Your task to perform on an android device: What's the news this morning? Image 0: 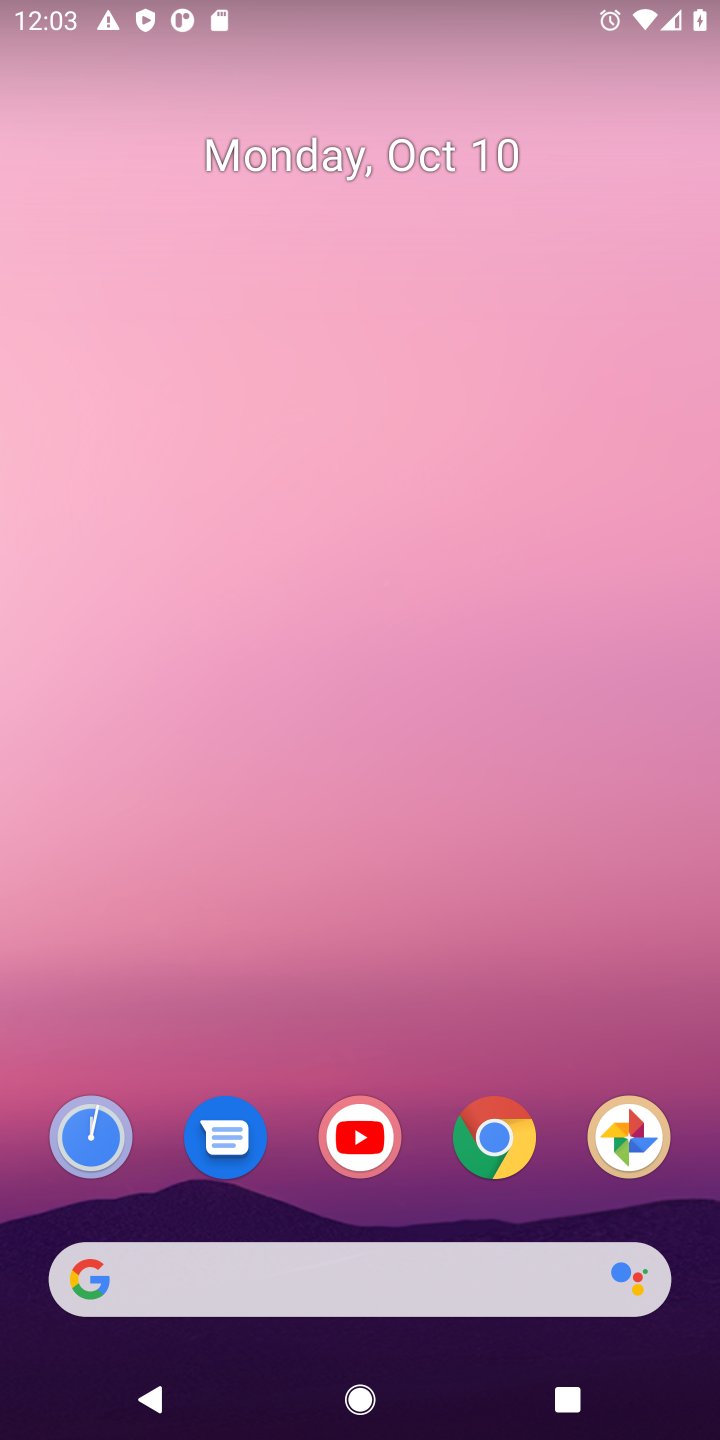
Step 0: drag from (567, 1008) to (527, 71)
Your task to perform on an android device: What's the news this morning? Image 1: 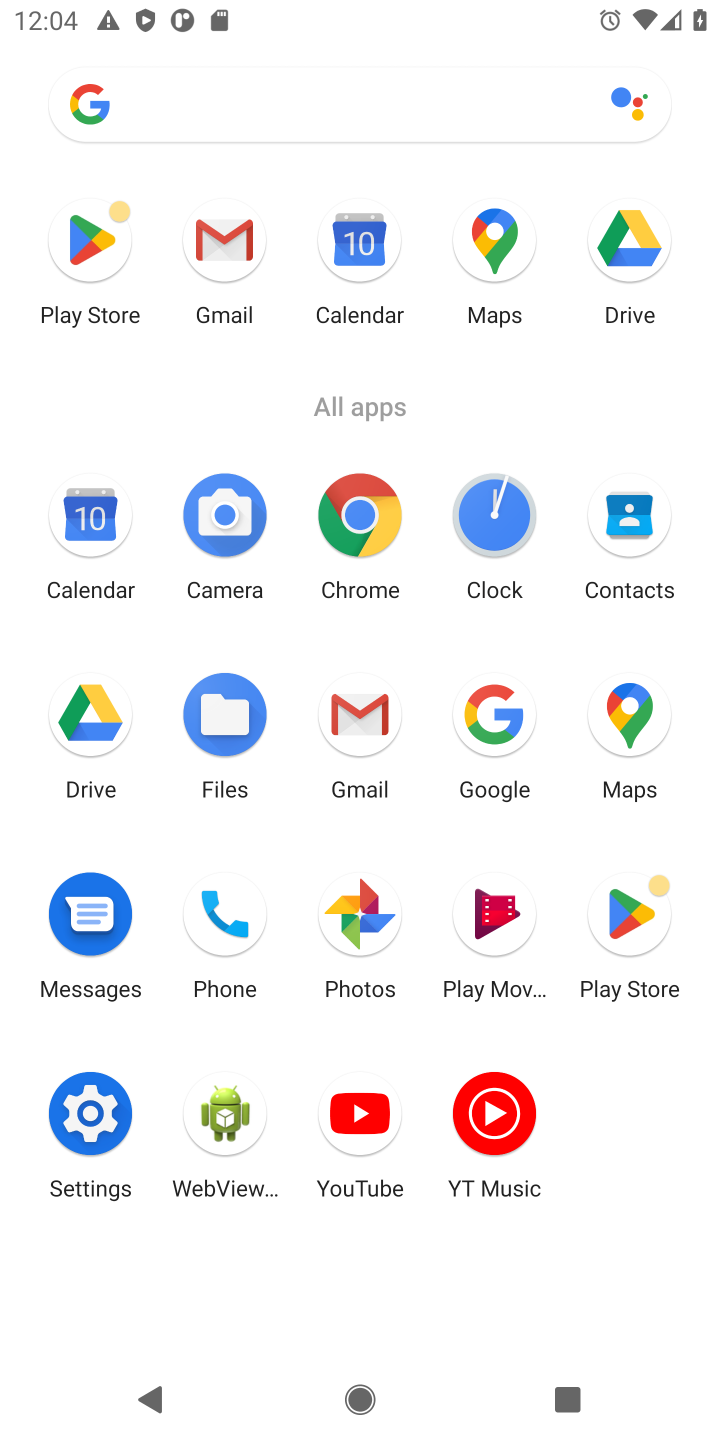
Step 1: click (369, 515)
Your task to perform on an android device: What's the news this morning? Image 2: 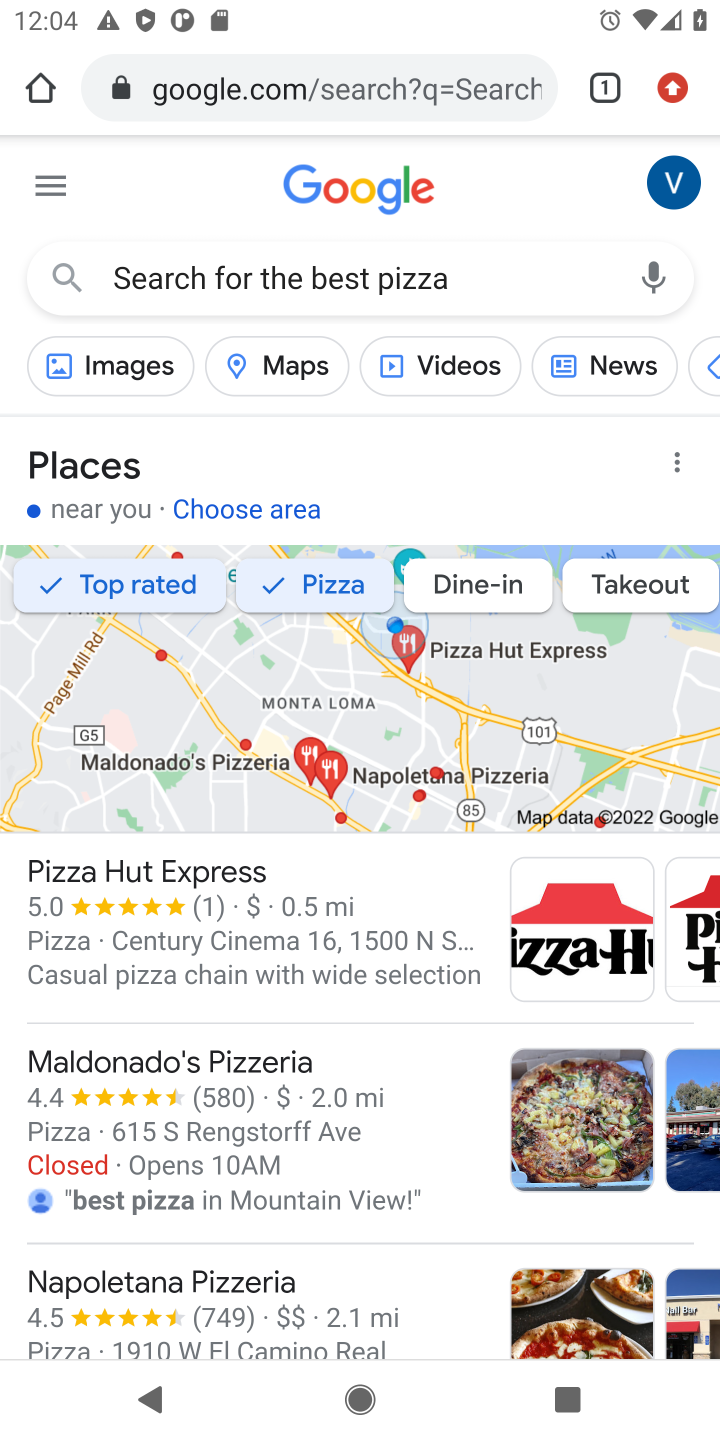
Step 2: click (348, 86)
Your task to perform on an android device: What's the news this morning? Image 3: 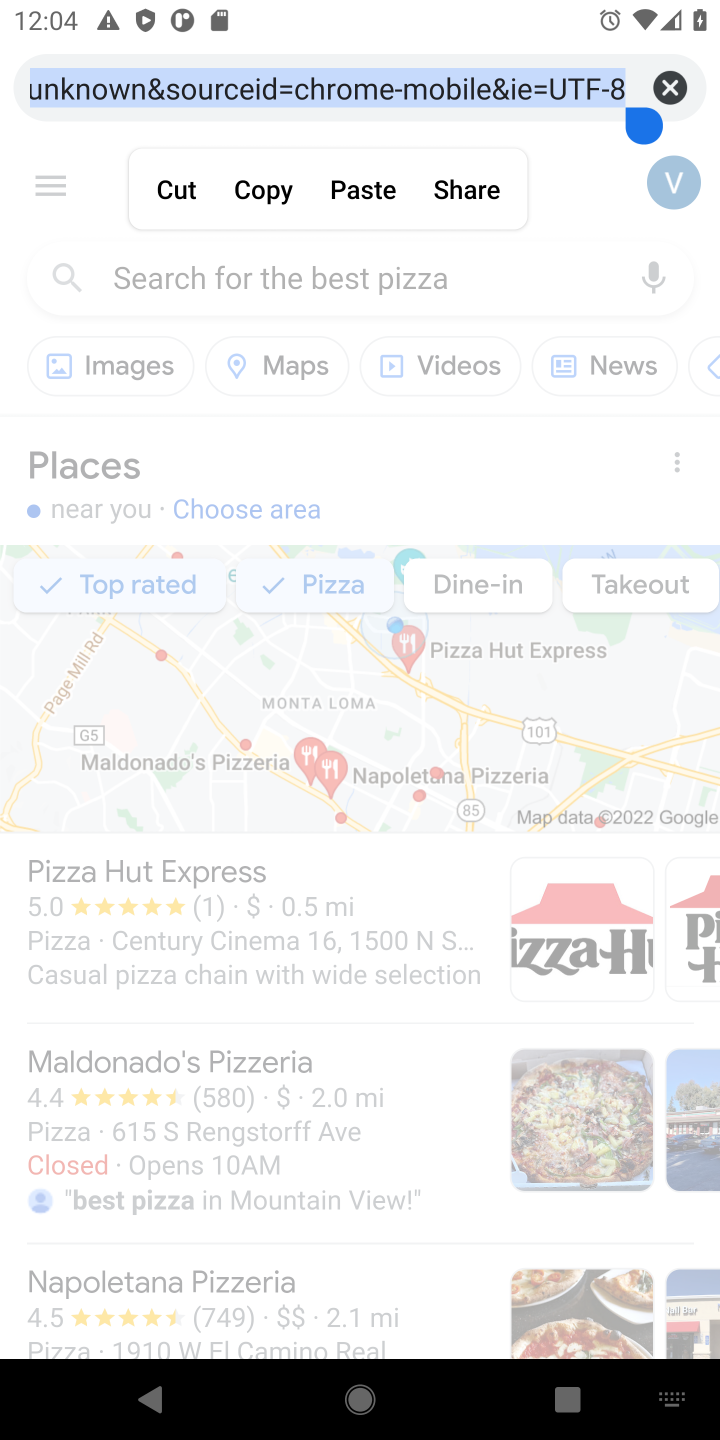
Step 3: click (677, 91)
Your task to perform on an android device: What's the news this morning? Image 4: 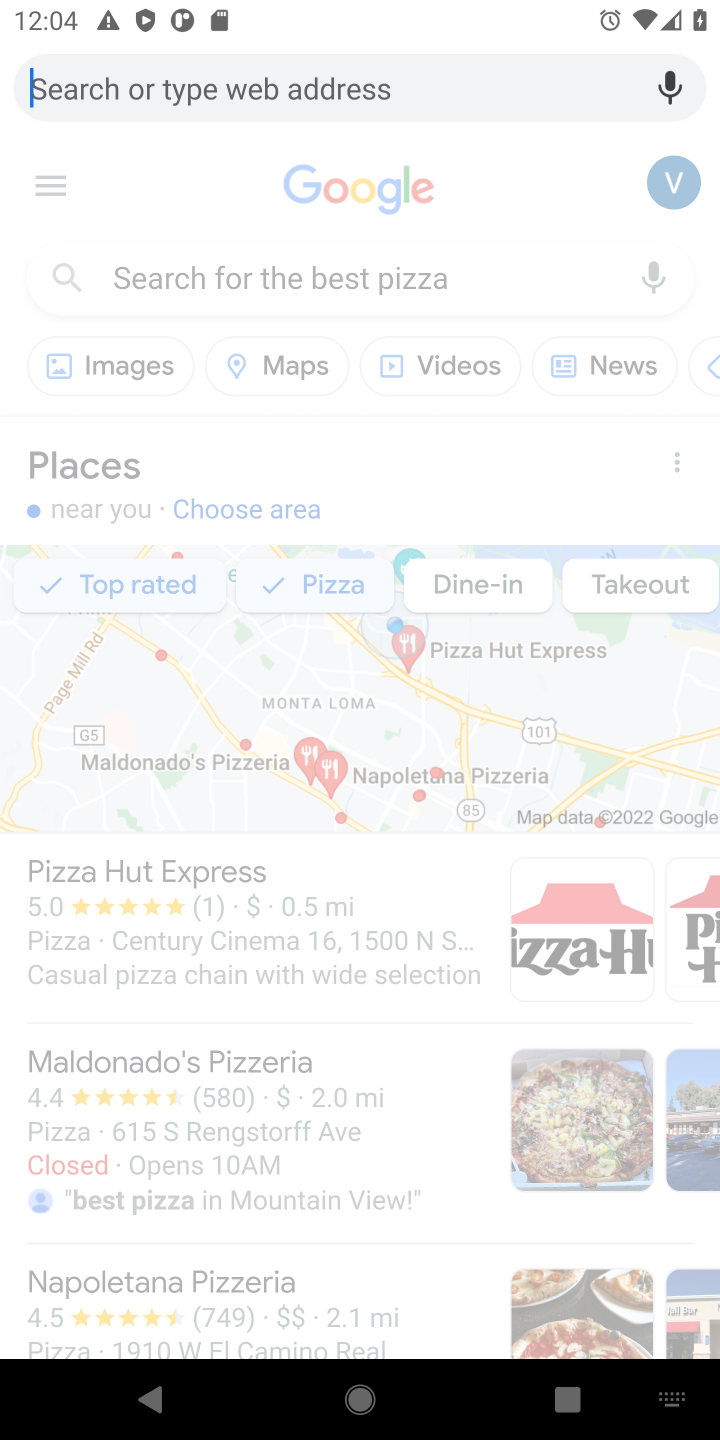
Step 4: type "What's the news this morning?"
Your task to perform on an android device: What's the news this morning? Image 5: 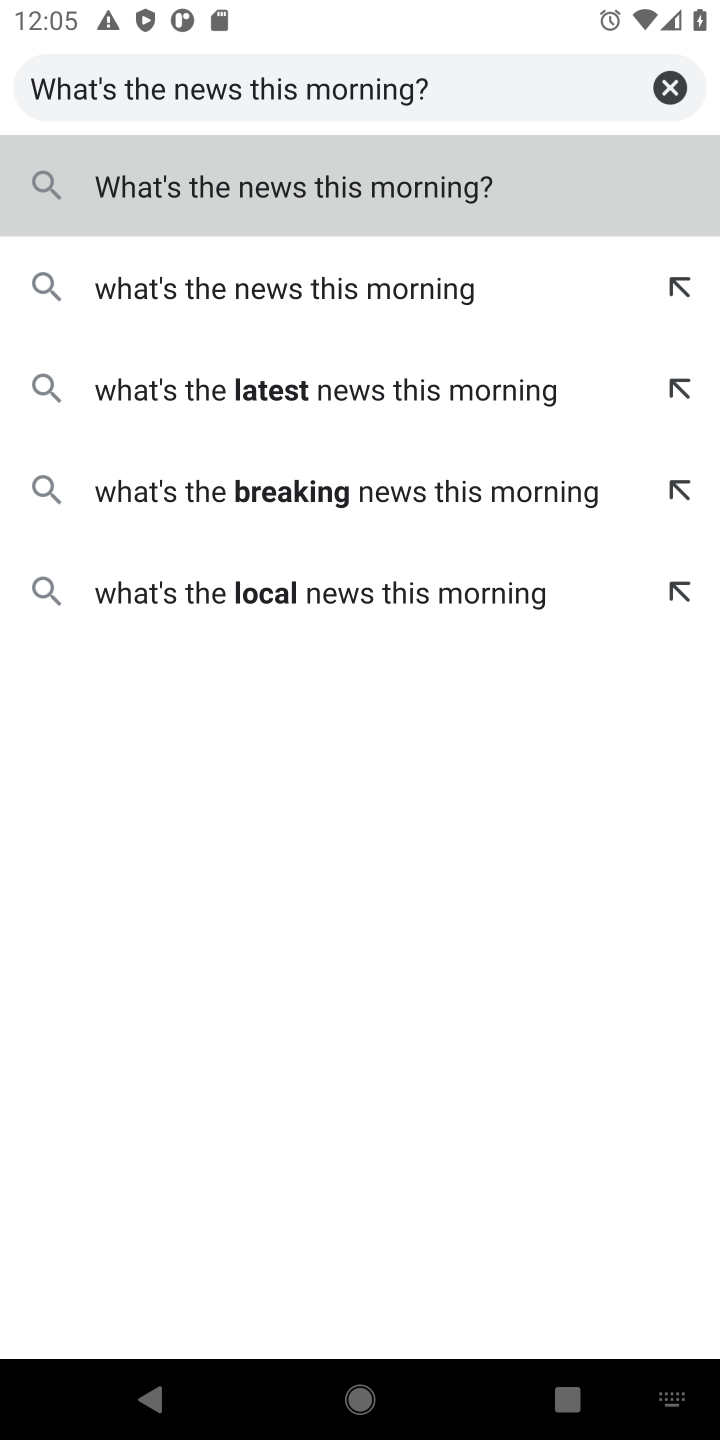
Step 5: click (257, 185)
Your task to perform on an android device: What's the news this morning? Image 6: 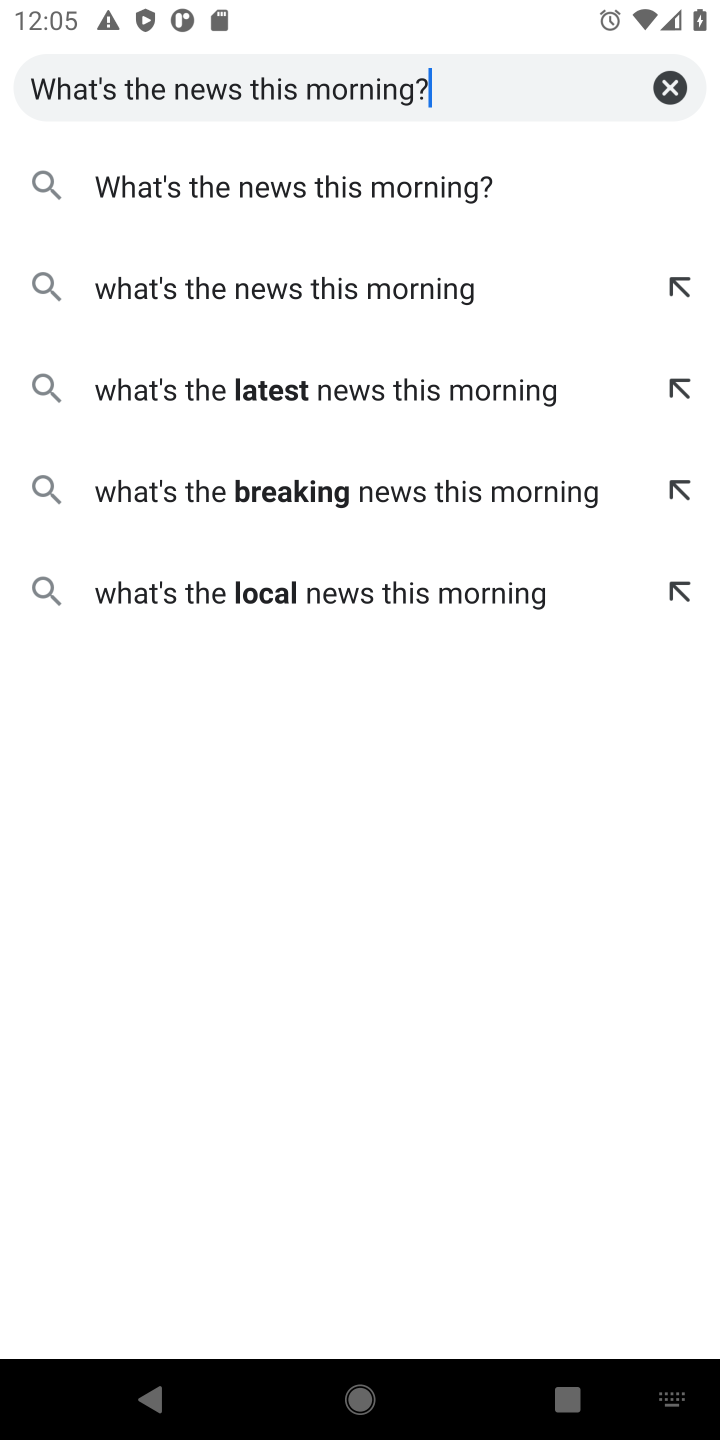
Step 6: task complete